Your task to perform on an android device: turn off smart reply in the gmail app Image 0: 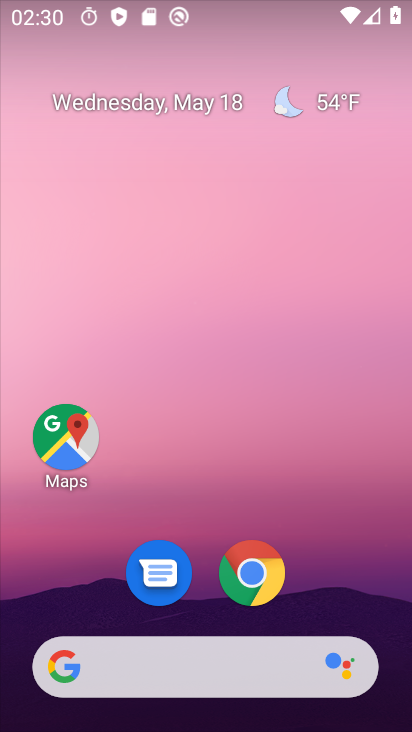
Step 0: drag from (208, 615) to (189, 165)
Your task to perform on an android device: turn off smart reply in the gmail app Image 1: 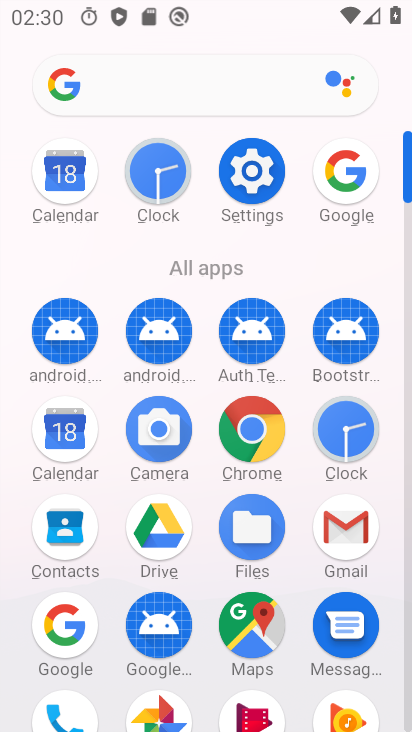
Step 1: drag from (199, 481) to (200, 309)
Your task to perform on an android device: turn off smart reply in the gmail app Image 2: 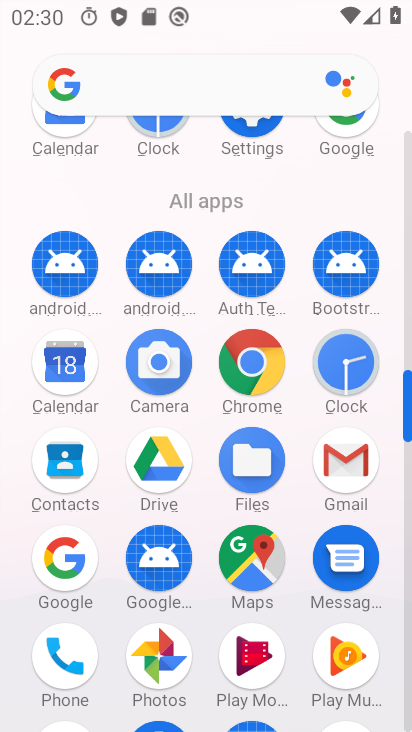
Step 2: click (354, 484)
Your task to perform on an android device: turn off smart reply in the gmail app Image 3: 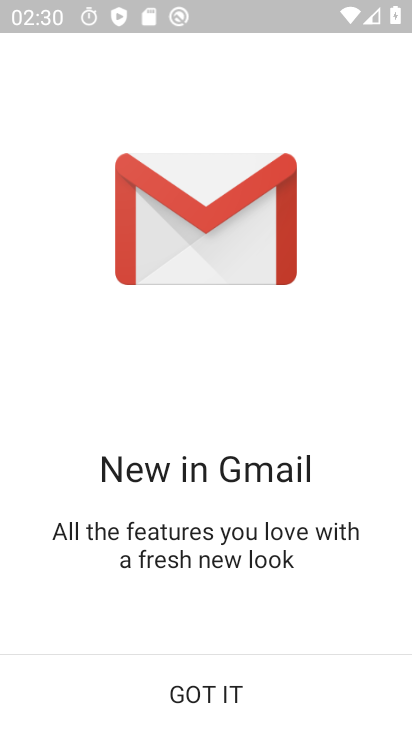
Step 3: click (221, 682)
Your task to perform on an android device: turn off smart reply in the gmail app Image 4: 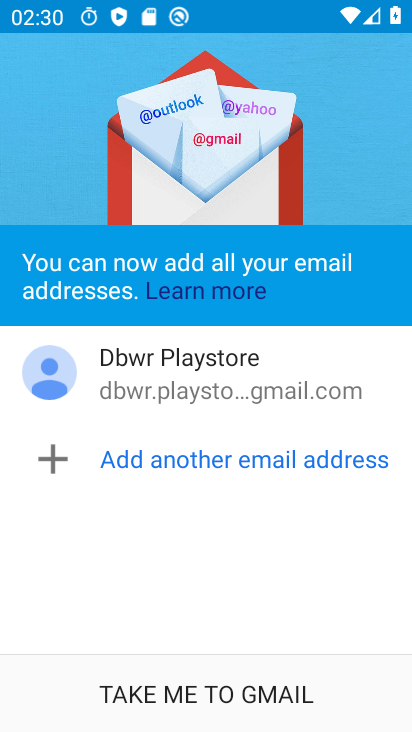
Step 4: click (221, 682)
Your task to perform on an android device: turn off smart reply in the gmail app Image 5: 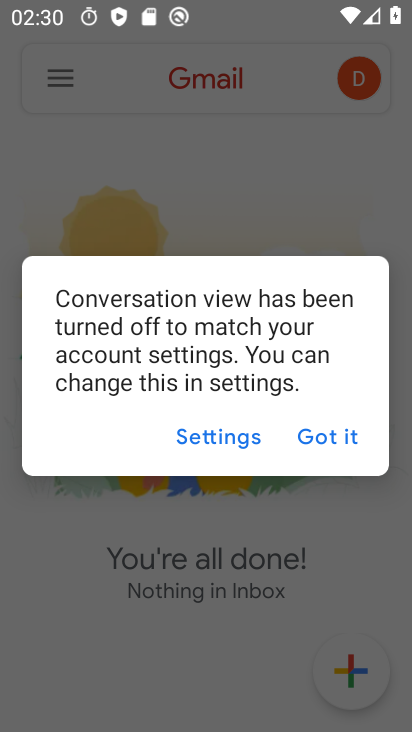
Step 5: click (322, 440)
Your task to perform on an android device: turn off smart reply in the gmail app Image 6: 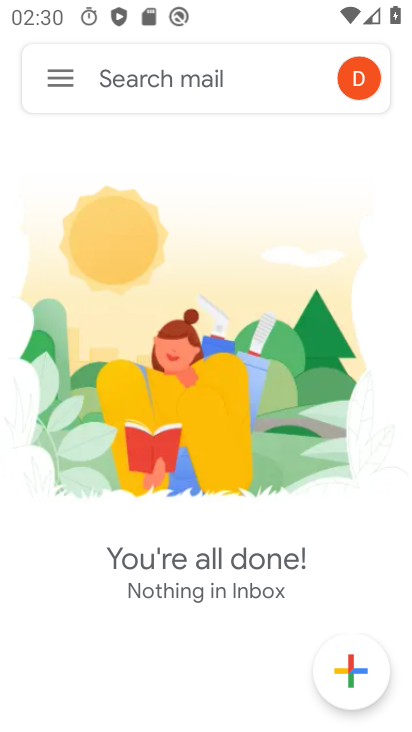
Step 6: click (70, 79)
Your task to perform on an android device: turn off smart reply in the gmail app Image 7: 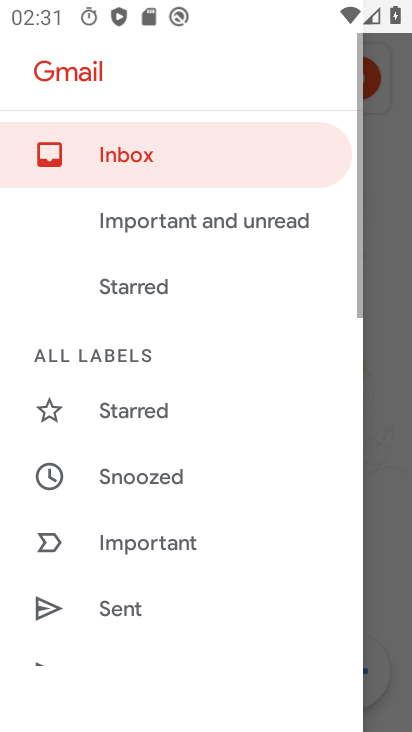
Step 7: drag from (187, 653) to (213, 333)
Your task to perform on an android device: turn off smart reply in the gmail app Image 8: 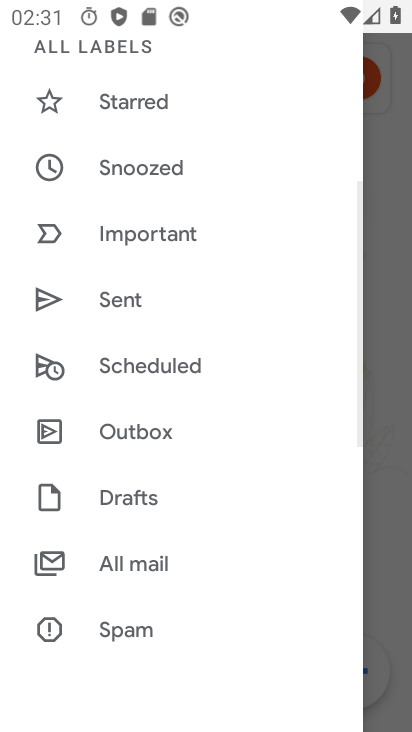
Step 8: drag from (206, 578) to (220, 372)
Your task to perform on an android device: turn off smart reply in the gmail app Image 9: 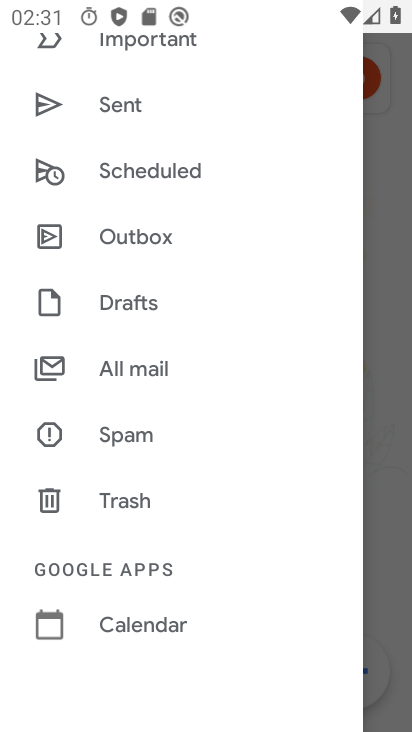
Step 9: drag from (187, 604) to (204, 435)
Your task to perform on an android device: turn off smart reply in the gmail app Image 10: 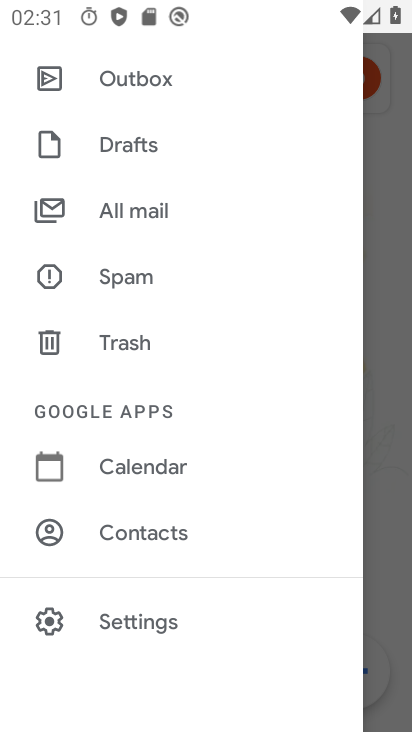
Step 10: click (156, 625)
Your task to perform on an android device: turn off smart reply in the gmail app Image 11: 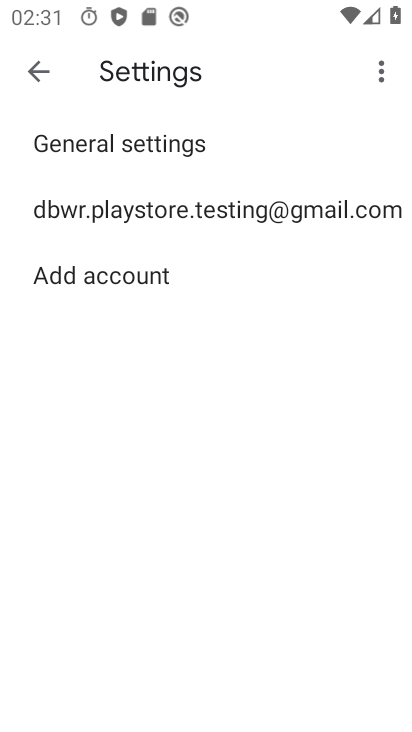
Step 11: click (203, 222)
Your task to perform on an android device: turn off smart reply in the gmail app Image 12: 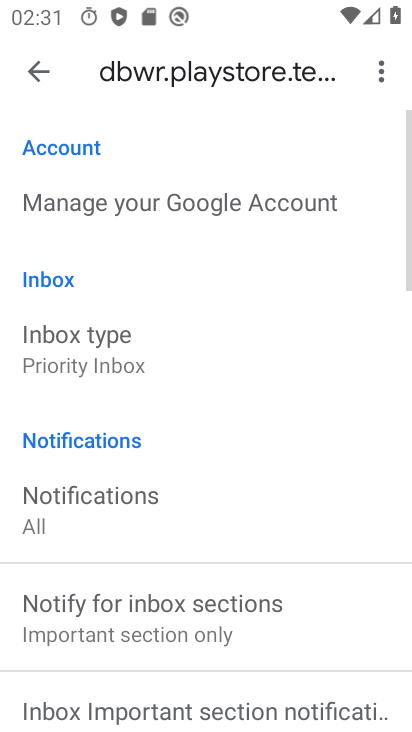
Step 12: drag from (240, 580) to (251, 359)
Your task to perform on an android device: turn off smart reply in the gmail app Image 13: 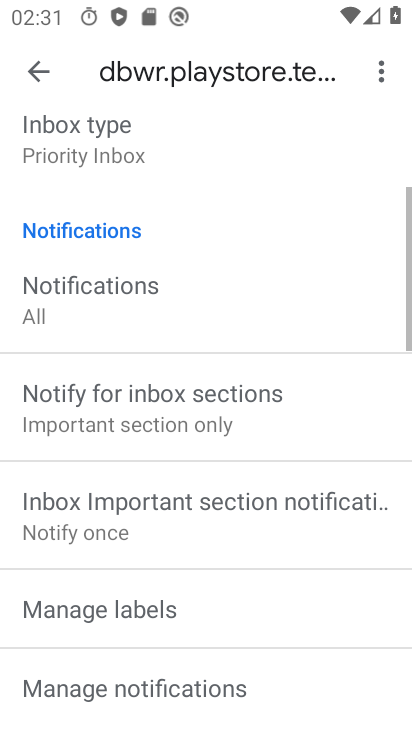
Step 13: drag from (246, 583) to (247, 331)
Your task to perform on an android device: turn off smart reply in the gmail app Image 14: 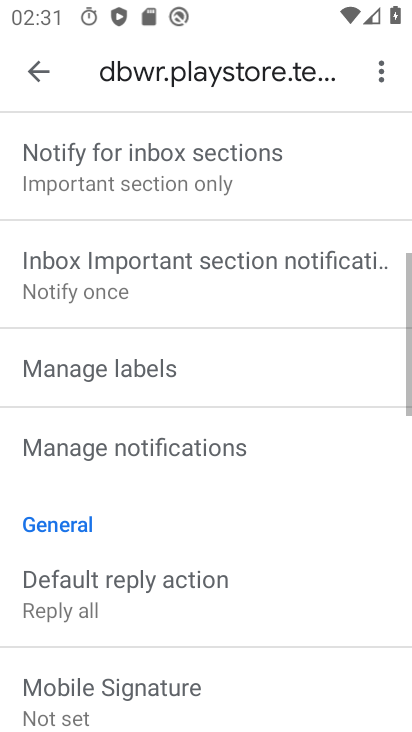
Step 14: drag from (227, 580) to (254, 353)
Your task to perform on an android device: turn off smart reply in the gmail app Image 15: 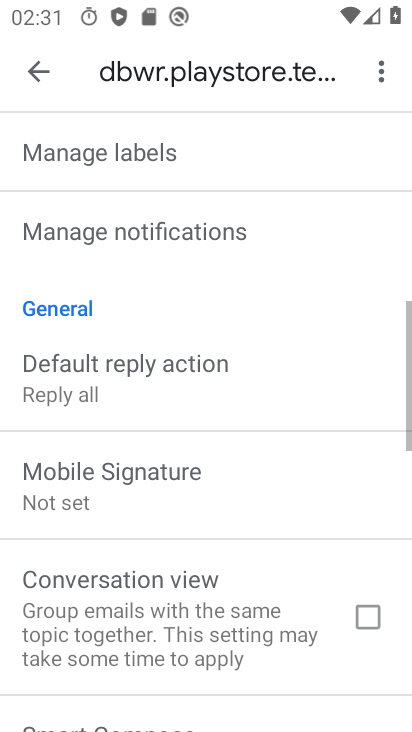
Step 15: drag from (263, 635) to (292, 356)
Your task to perform on an android device: turn off smart reply in the gmail app Image 16: 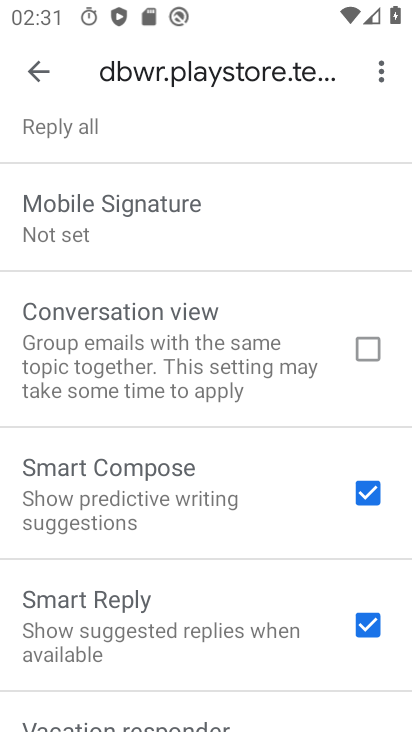
Step 16: click (350, 607)
Your task to perform on an android device: turn off smart reply in the gmail app Image 17: 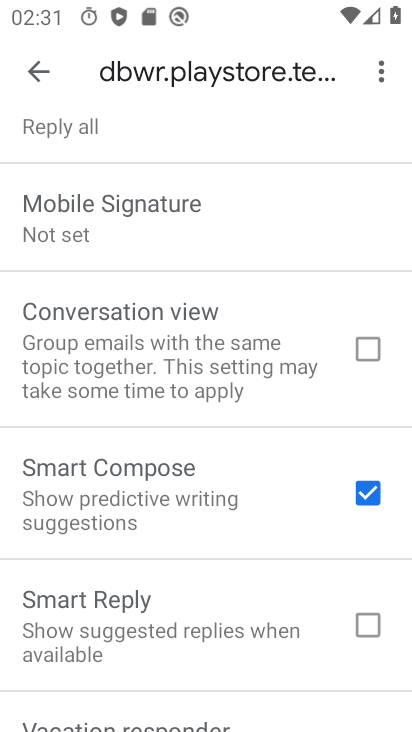
Step 17: task complete